Your task to perform on an android device: Add "razer blade" to the cart on ebay.com, then select checkout. Image 0: 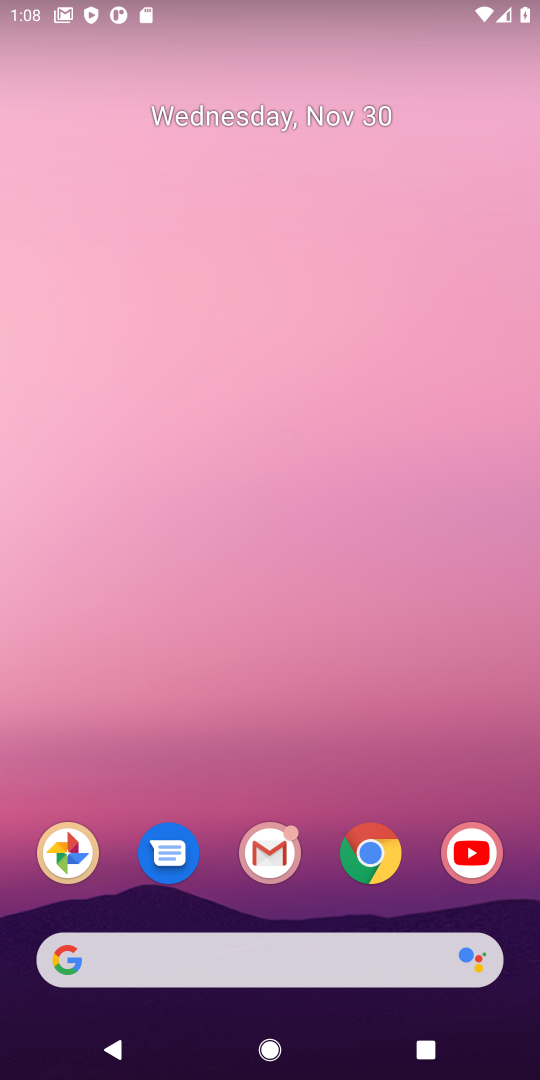
Step 0: click (364, 865)
Your task to perform on an android device: Add "razer blade" to the cart on ebay.com, then select checkout. Image 1: 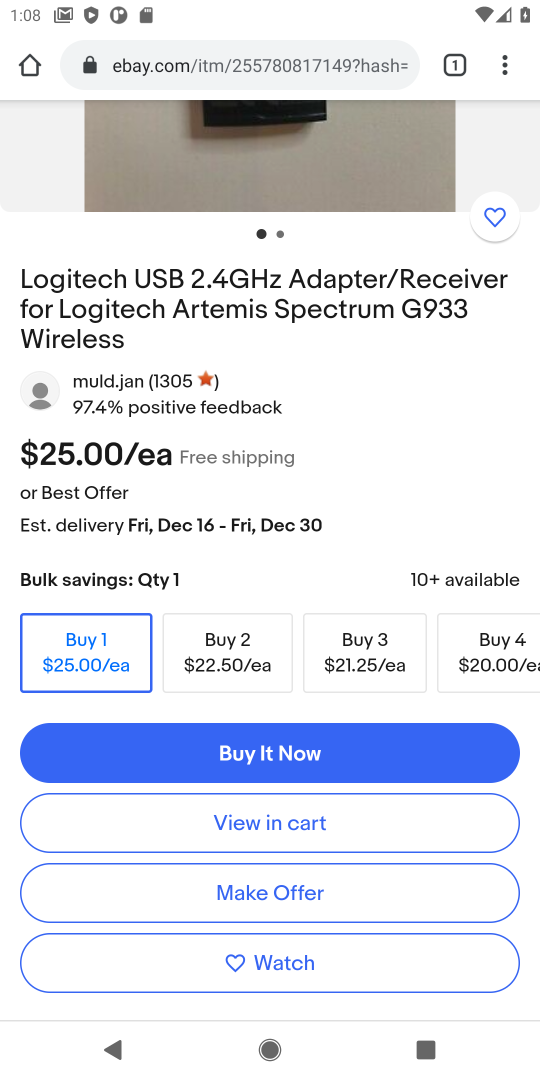
Step 1: drag from (386, 325) to (390, 677)
Your task to perform on an android device: Add "razer blade" to the cart on ebay.com, then select checkout. Image 2: 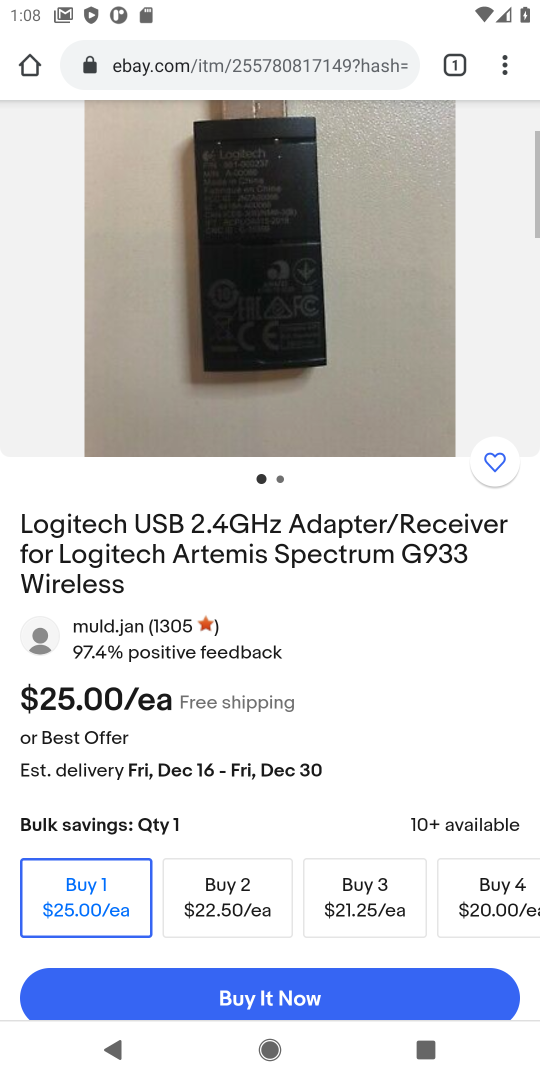
Step 2: drag from (259, 305) to (258, 733)
Your task to perform on an android device: Add "razer blade" to the cart on ebay.com, then select checkout. Image 3: 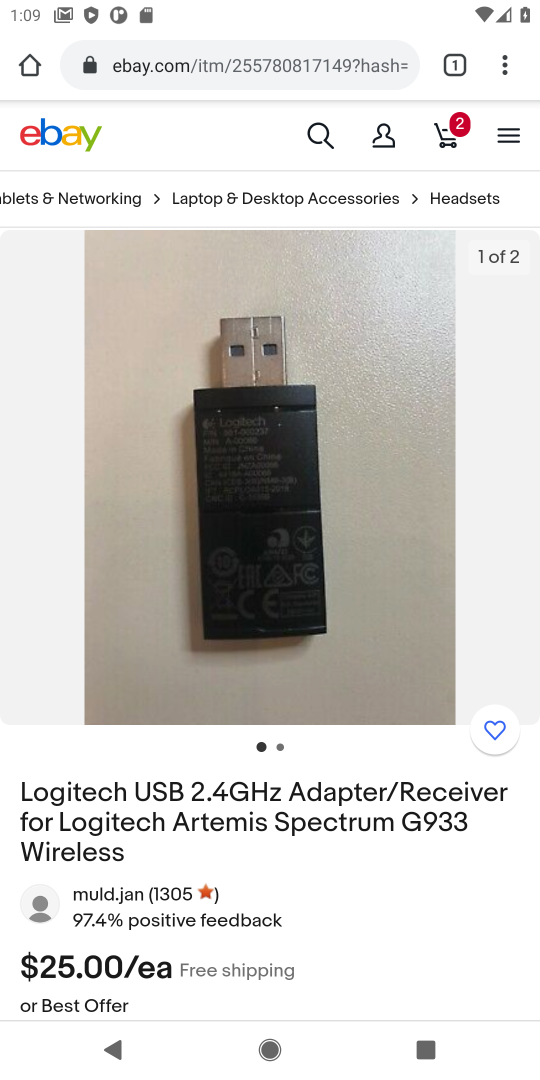
Step 3: click (315, 134)
Your task to perform on an android device: Add "razer blade" to the cart on ebay.com, then select checkout. Image 4: 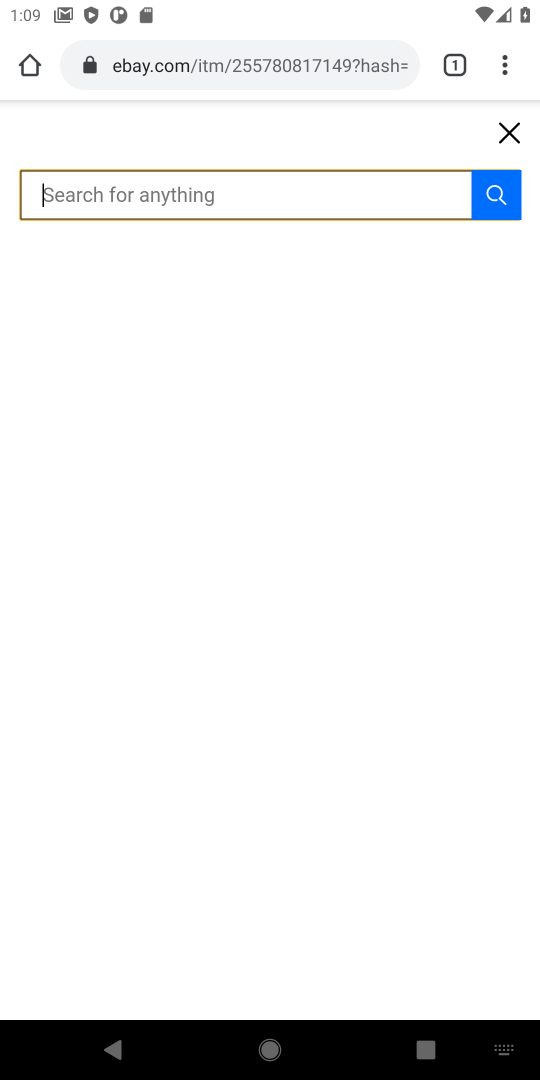
Step 4: type "razer blade"
Your task to perform on an android device: Add "razer blade" to the cart on ebay.com, then select checkout. Image 5: 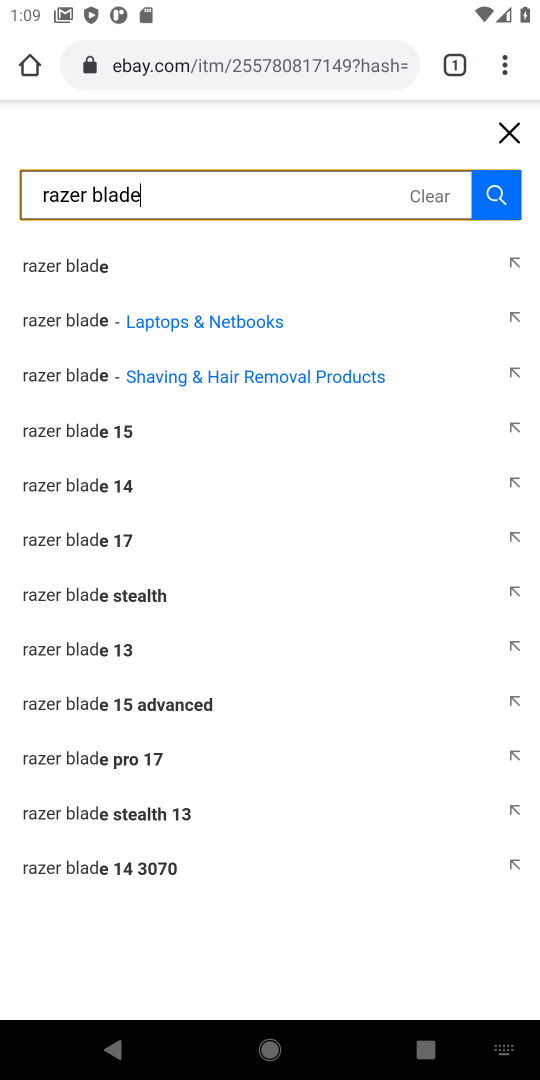
Step 5: click (53, 268)
Your task to perform on an android device: Add "razer blade" to the cart on ebay.com, then select checkout. Image 6: 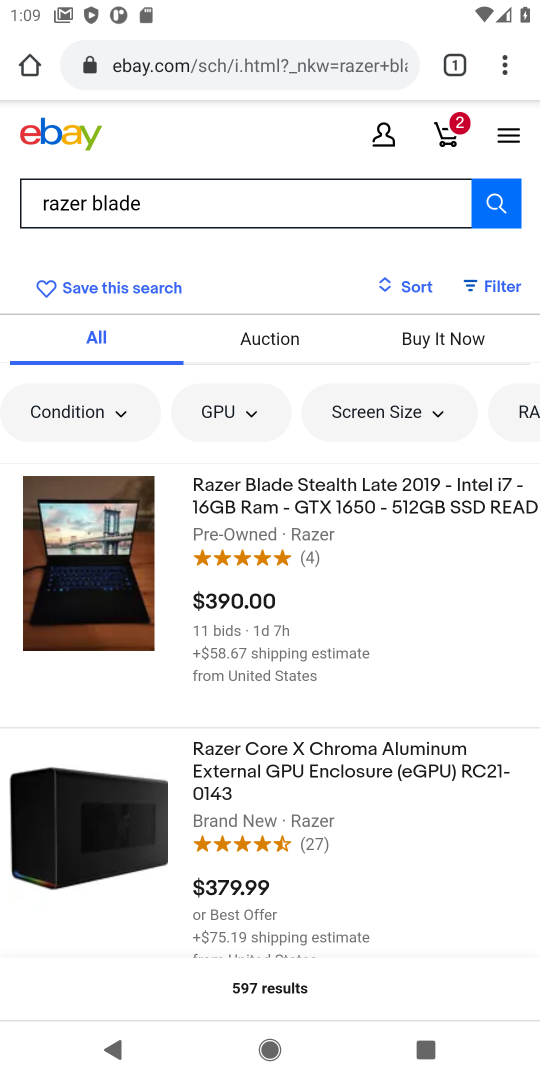
Step 6: drag from (421, 698) to (443, 374)
Your task to perform on an android device: Add "razer blade" to the cart on ebay.com, then select checkout. Image 7: 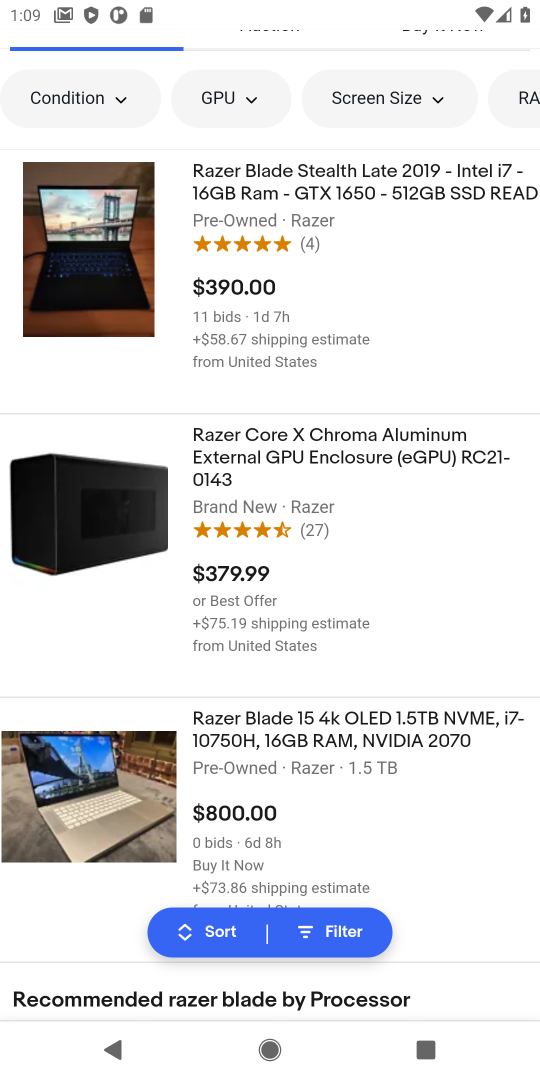
Step 7: drag from (380, 795) to (395, 440)
Your task to perform on an android device: Add "razer blade" to the cart on ebay.com, then select checkout. Image 8: 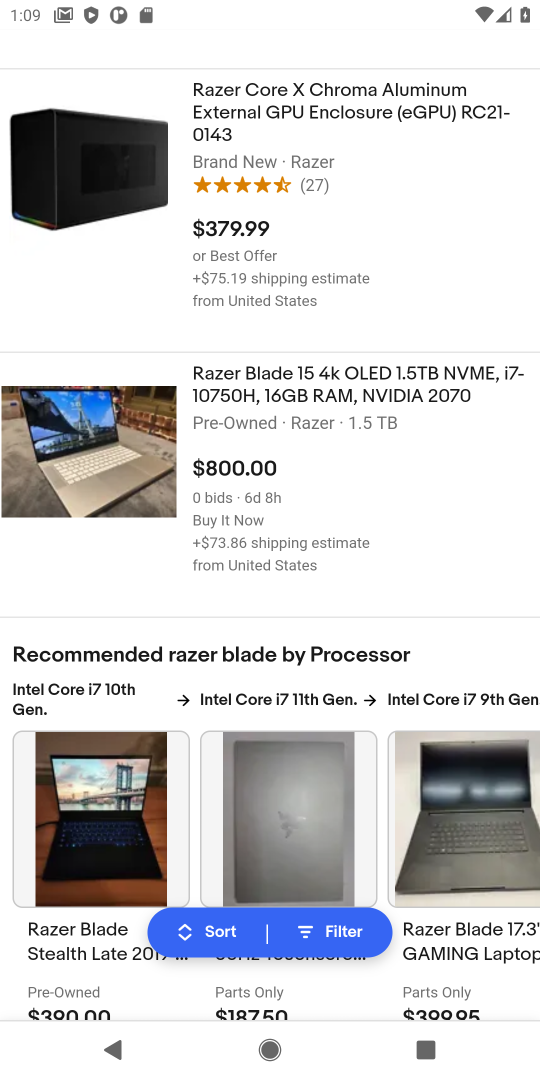
Step 8: drag from (382, 607) to (409, 281)
Your task to perform on an android device: Add "razer blade" to the cart on ebay.com, then select checkout. Image 9: 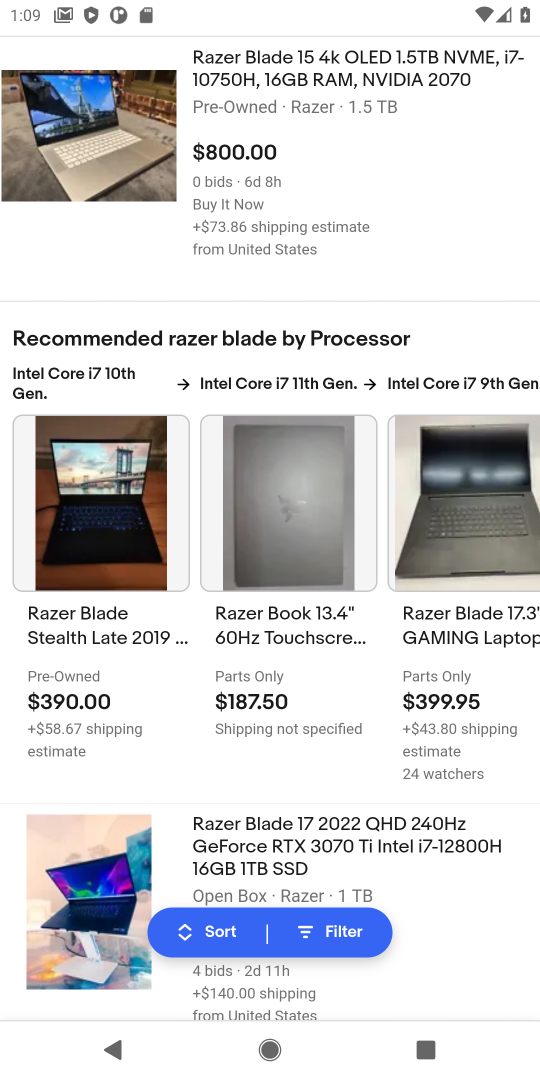
Step 9: drag from (398, 743) to (406, 357)
Your task to perform on an android device: Add "razer blade" to the cart on ebay.com, then select checkout. Image 10: 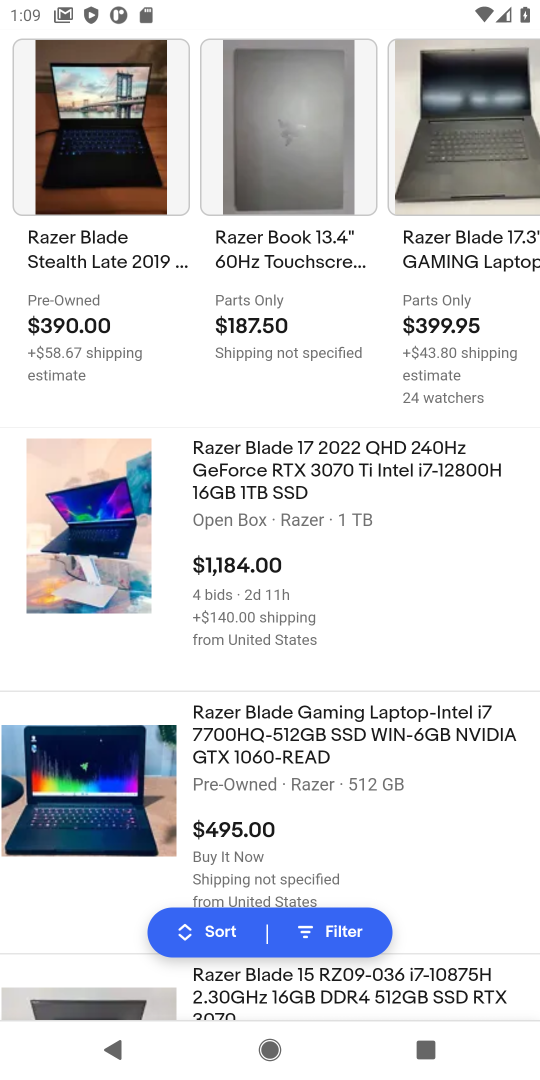
Step 10: drag from (376, 659) to (393, 380)
Your task to perform on an android device: Add "razer blade" to the cart on ebay.com, then select checkout. Image 11: 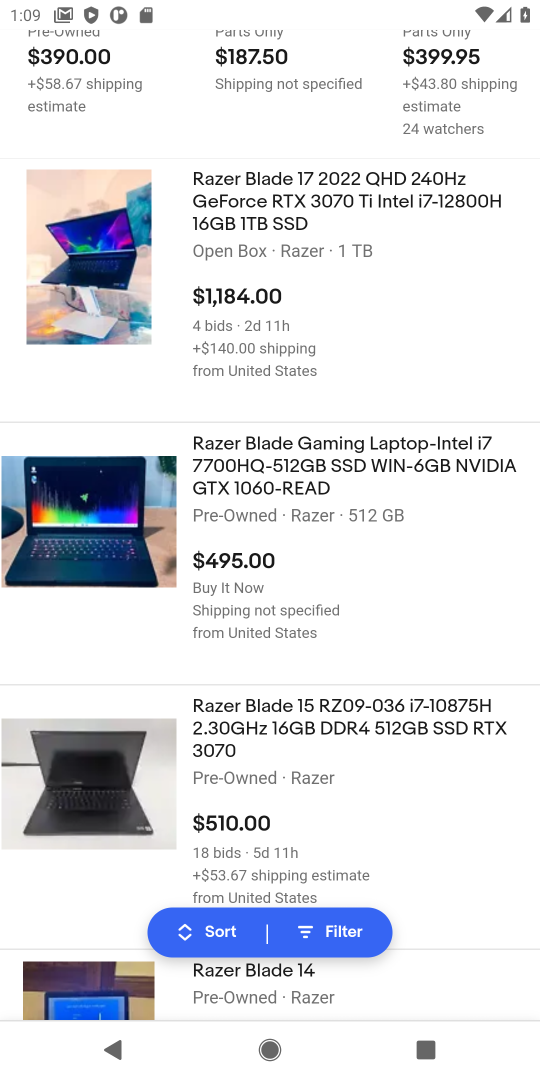
Step 11: click (280, 469)
Your task to perform on an android device: Add "razer blade" to the cart on ebay.com, then select checkout. Image 12: 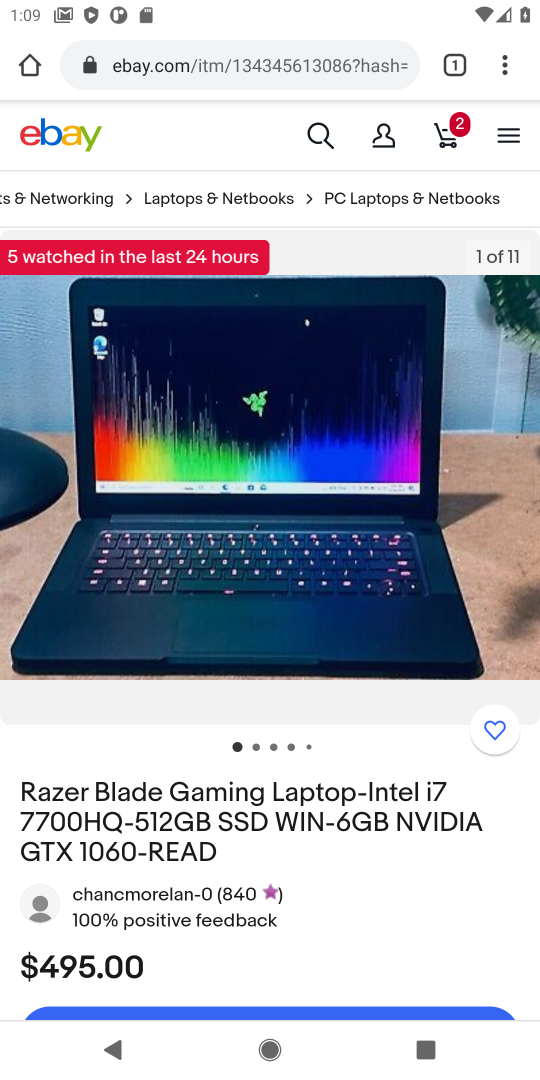
Step 12: drag from (363, 776) to (339, 331)
Your task to perform on an android device: Add "razer blade" to the cart on ebay.com, then select checkout. Image 13: 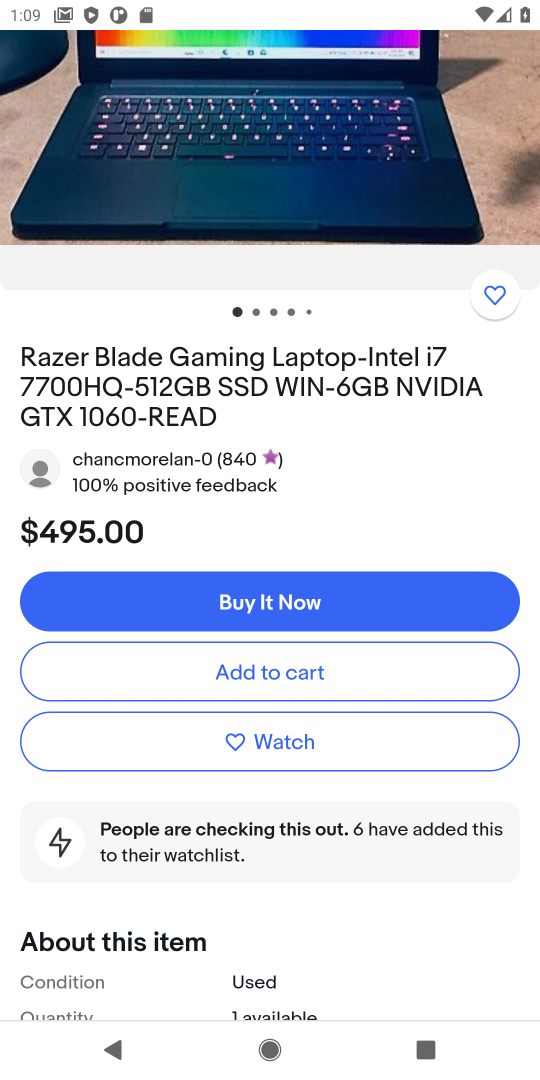
Step 13: click (254, 678)
Your task to perform on an android device: Add "razer blade" to the cart on ebay.com, then select checkout. Image 14: 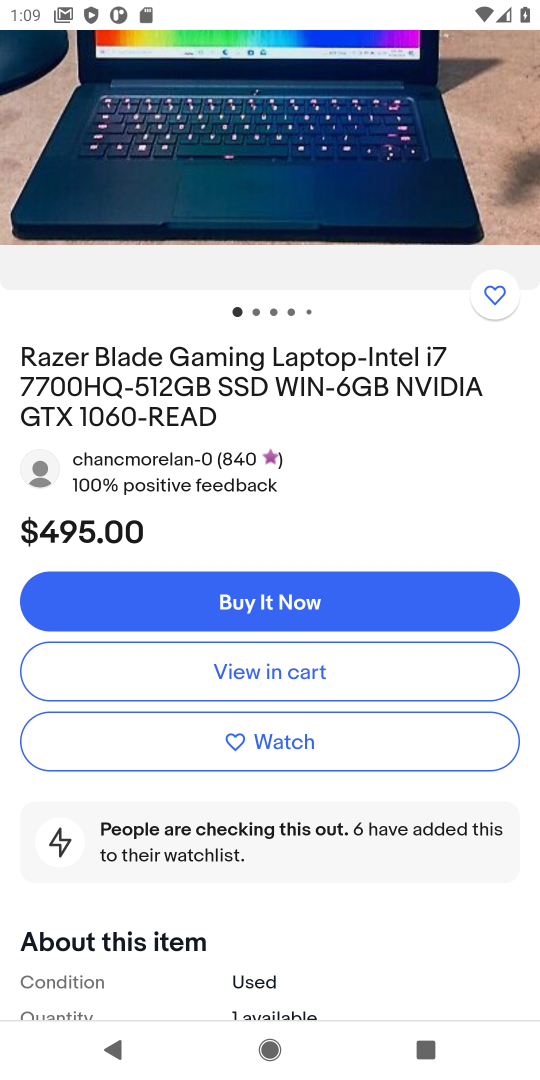
Step 14: click (254, 678)
Your task to perform on an android device: Add "razer blade" to the cart on ebay.com, then select checkout. Image 15: 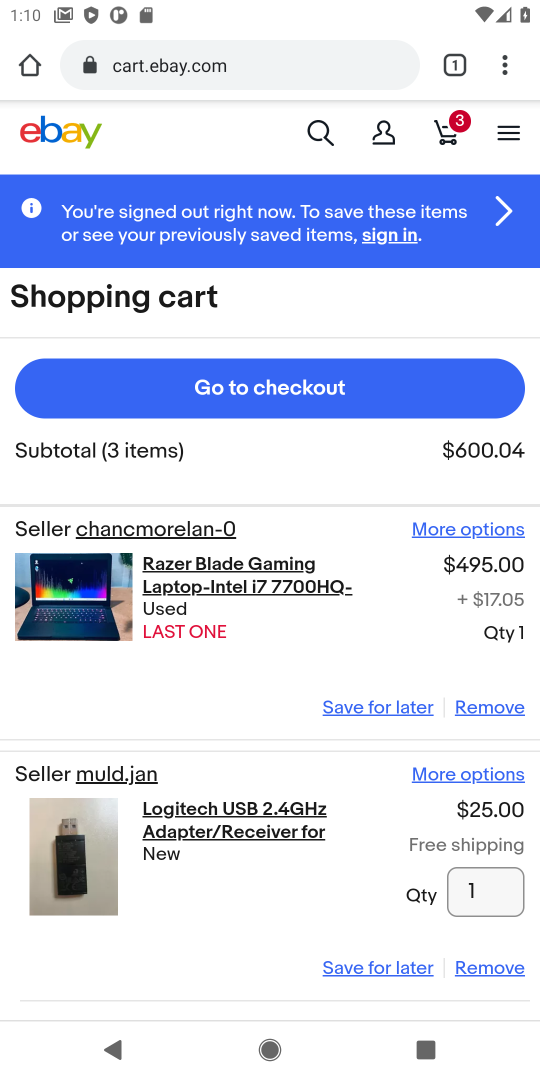
Step 15: click (250, 395)
Your task to perform on an android device: Add "razer blade" to the cart on ebay.com, then select checkout. Image 16: 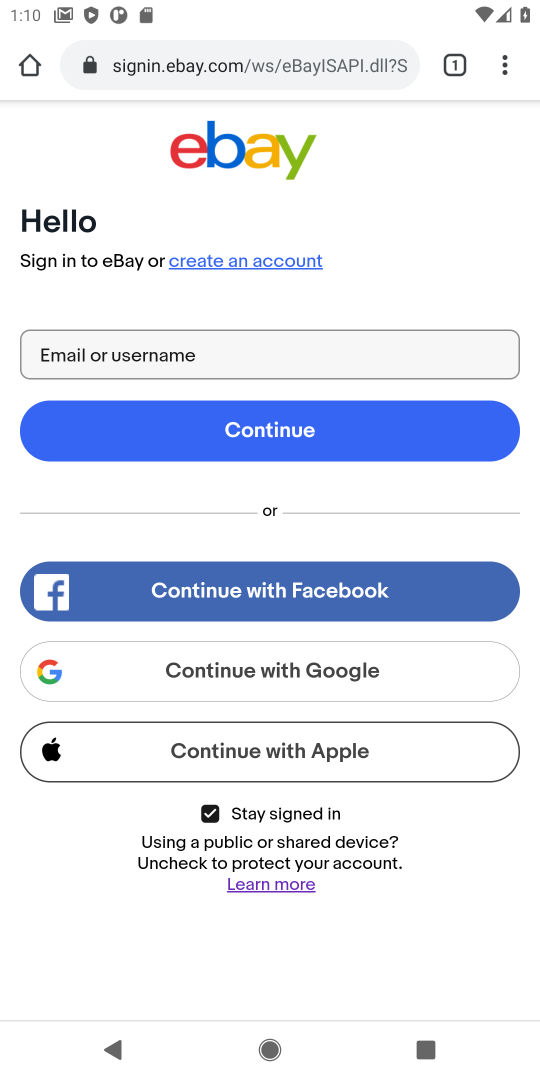
Step 16: task complete